Your task to perform on an android device: turn off wifi Image 0: 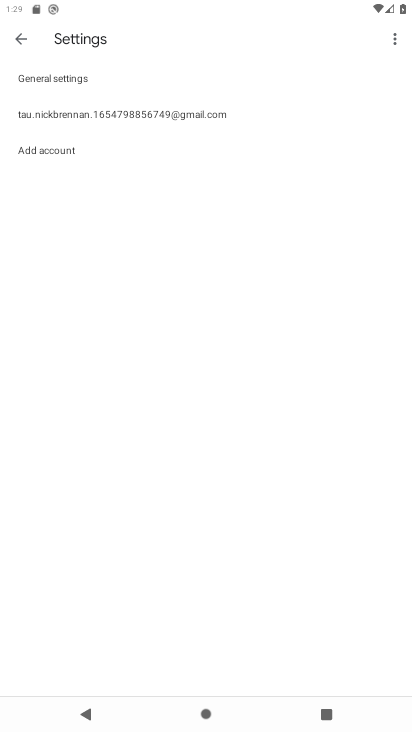
Step 0: press home button
Your task to perform on an android device: turn off wifi Image 1: 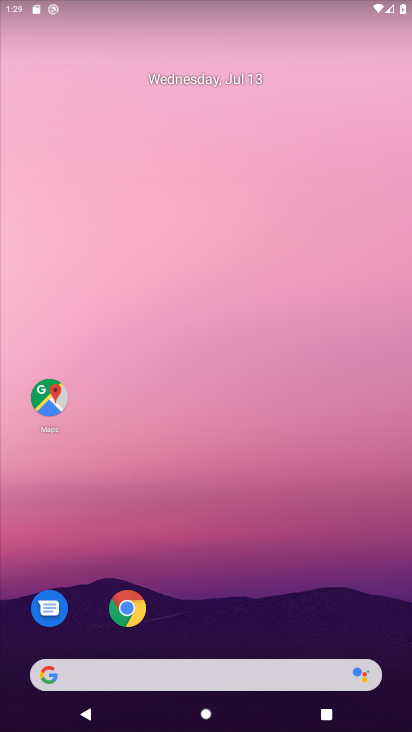
Step 1: drag from (180, 640) to (238, 124)
Your task to perform on an android device: turn off wifi Image 2: 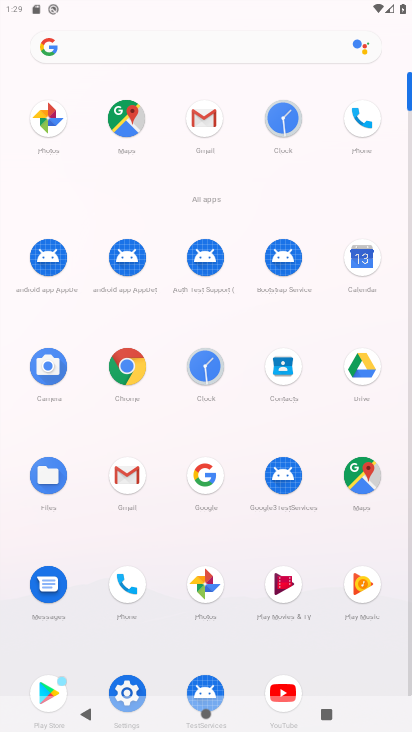
Step 2: click (126, 679)
Your task to perform on an android device: turn off wifi Image 3: 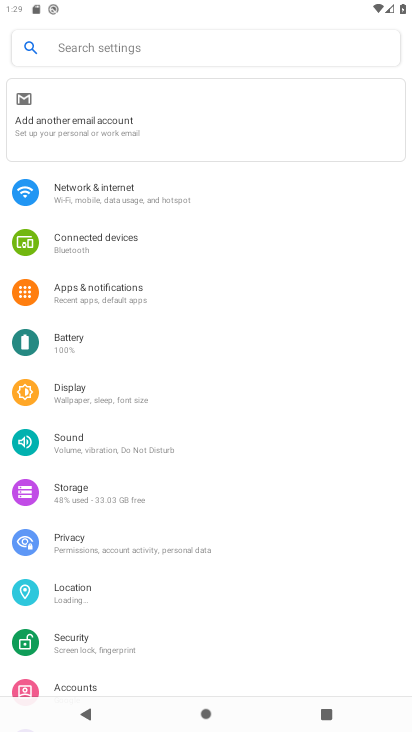
Step 3: click (153, 201)
Your task to perform on an android device: turn off wifi Image 4: 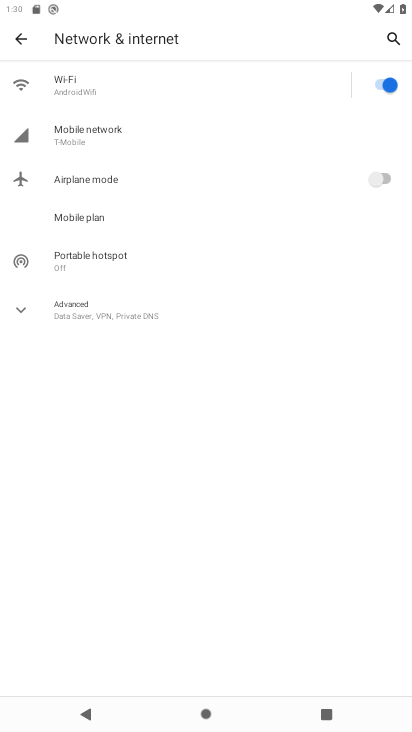
Step 4: click (386, 84)
Your task to perform on an android device: turn off wifi Image 5: 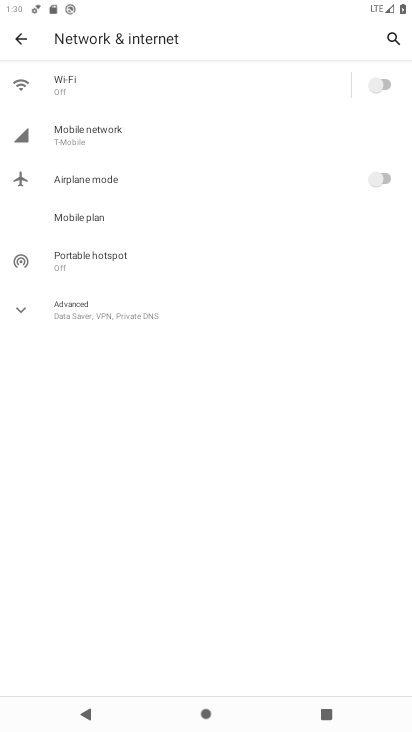
Step 5: task complete